Your task to perform on an android device: What's on my calendar tomorrow? Image 0: 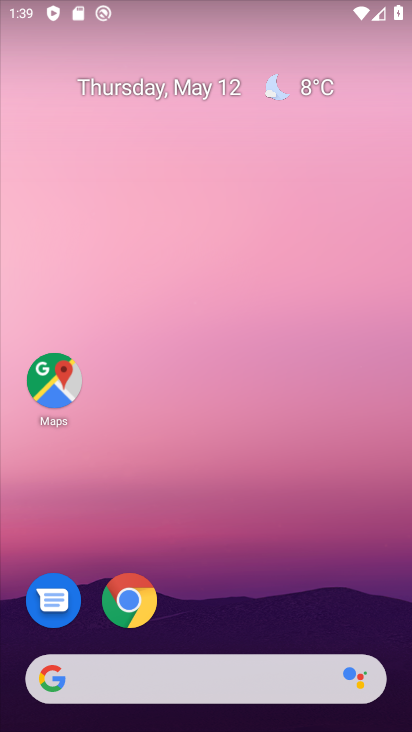
Step 0: drag from (213, 541) to (256, 187)
Your task to perform on an android device: What's on my calendar tomorrow? Image 1: 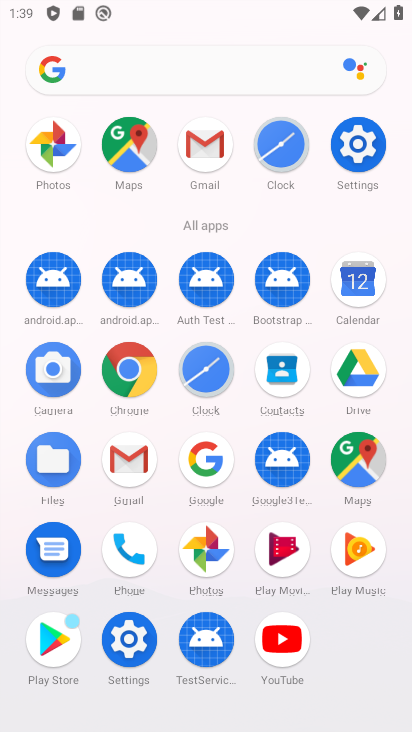
Step 1: click (361, 282)
Your task to perform on an android device: What's on my calendar tomorrow? Image 2: 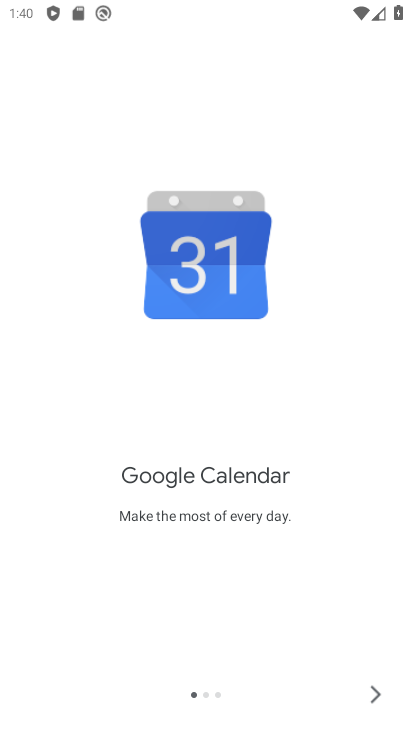
Step 2: click (378, 691)
Your task to perform on an android device: What's on my calendar tomorrow? Image 3: 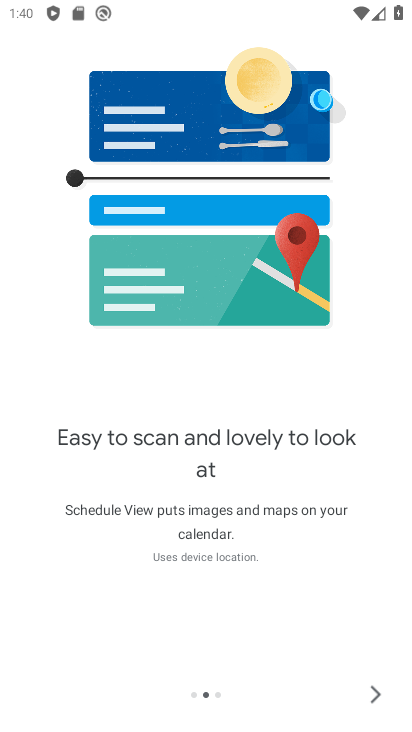
Step 3: click (378, 691)
Your task to perform on an android device: What's on my calendar tomorrow? Image 4: 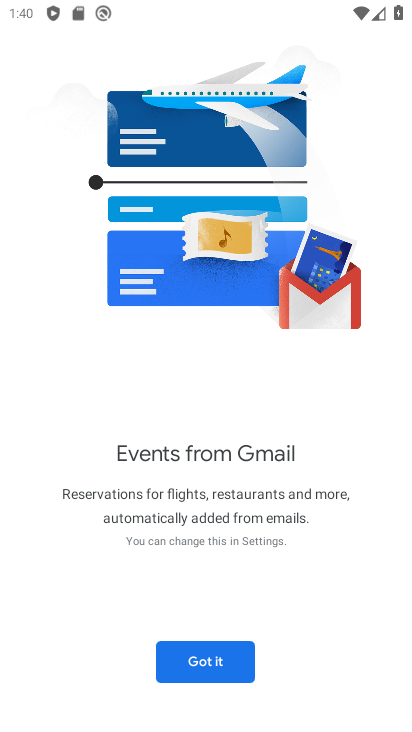
Step 4: click (222, 660)
Your task to perform on an android device: What's on my calendar tomorrow? Image 5: 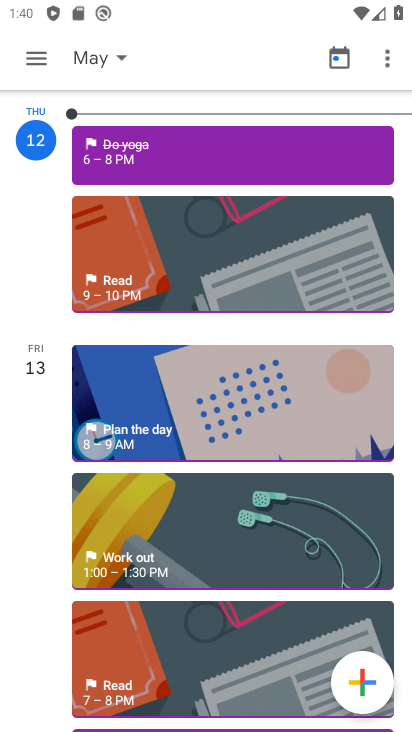
Step 5: click (31, 352)
Your task to perform on an android device: What's on my calendar tomorrow? Image 6: 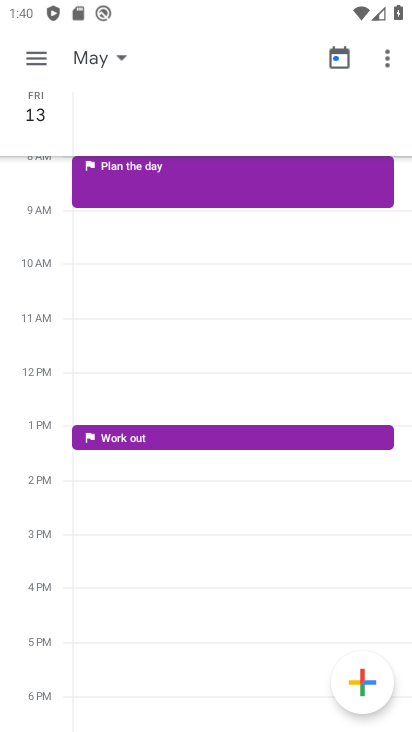
Step 6: task complete